Your task to perform on an android device: open app "Pandora - Music & Podcasts" Image 0: 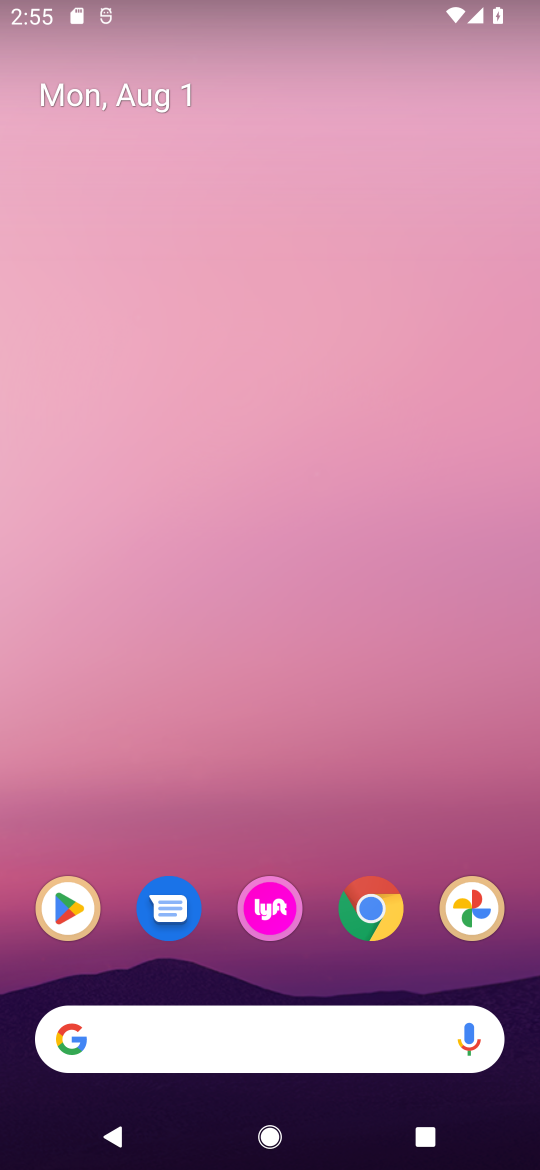
Step 0: drag from (287, 980) to (258, 37)
Your task to perform on an android device: open app "Pandora - Music & Podcasts" Image 1: 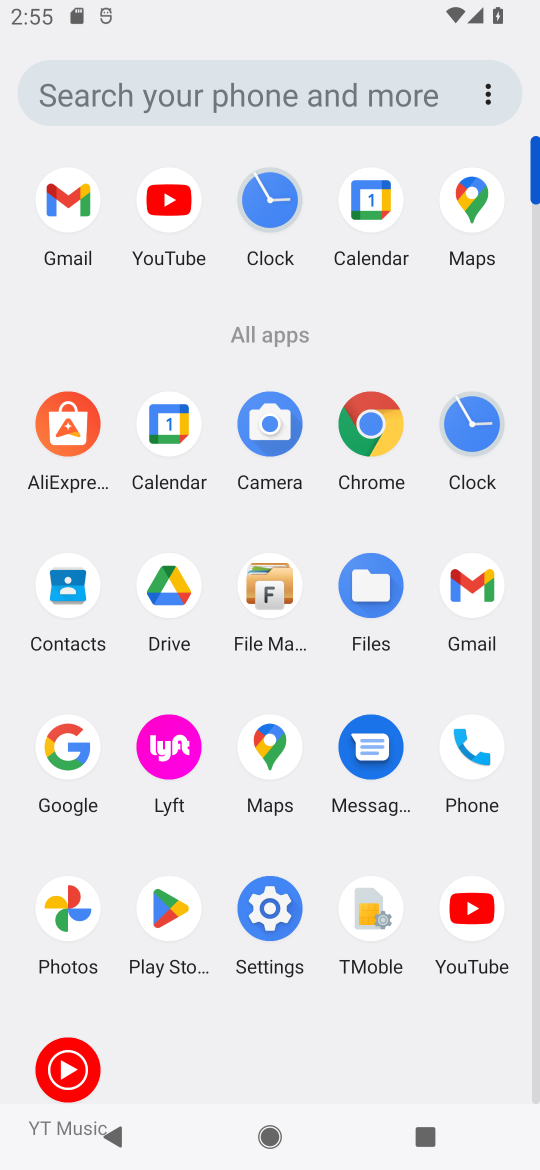
Step 1: click (156, 916)
Your task to perform on an android device: open app "Pandora - Music & Podcasts" Image 2: 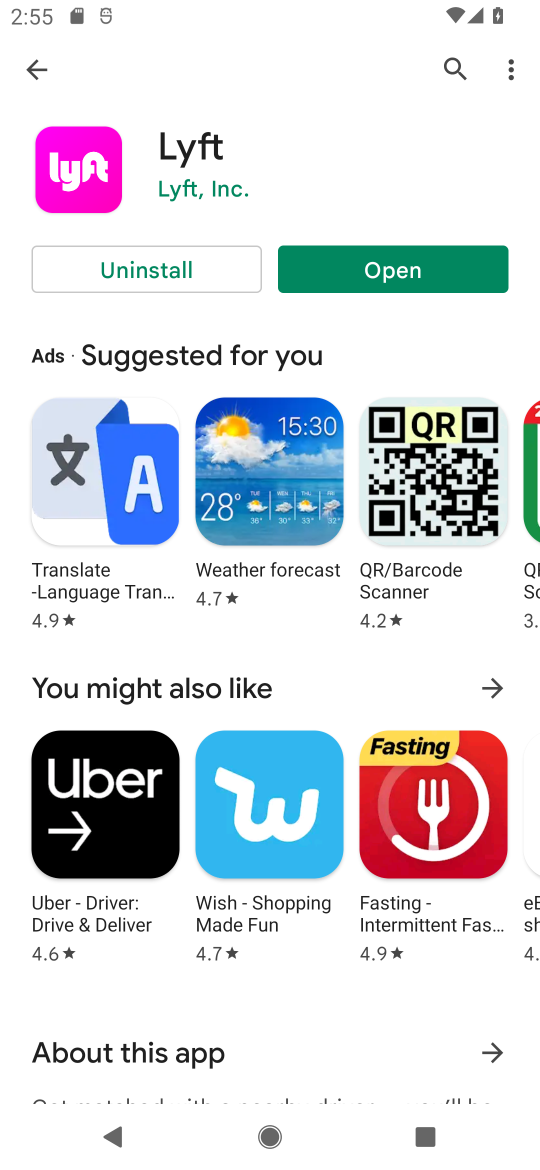
Step 2: click (35, 68)
Your task to perform on an android device: open app "Pandora - Music & Podcasts" Image 3: 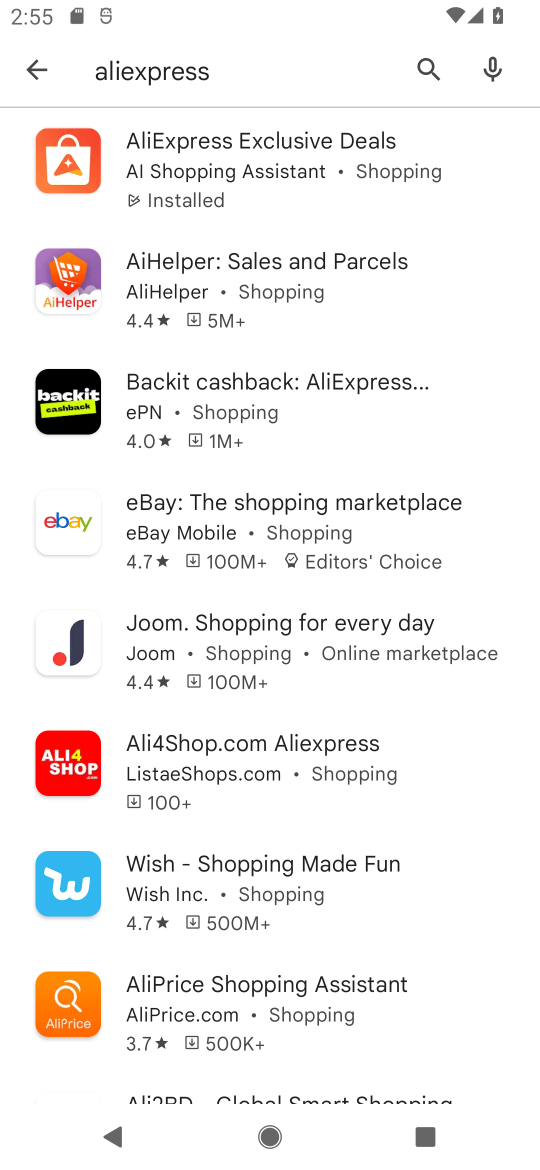
Step 3: click (437, 77)
Your task to perform on an android device: open app "Pandora - Music & Podcasts" Image 4: 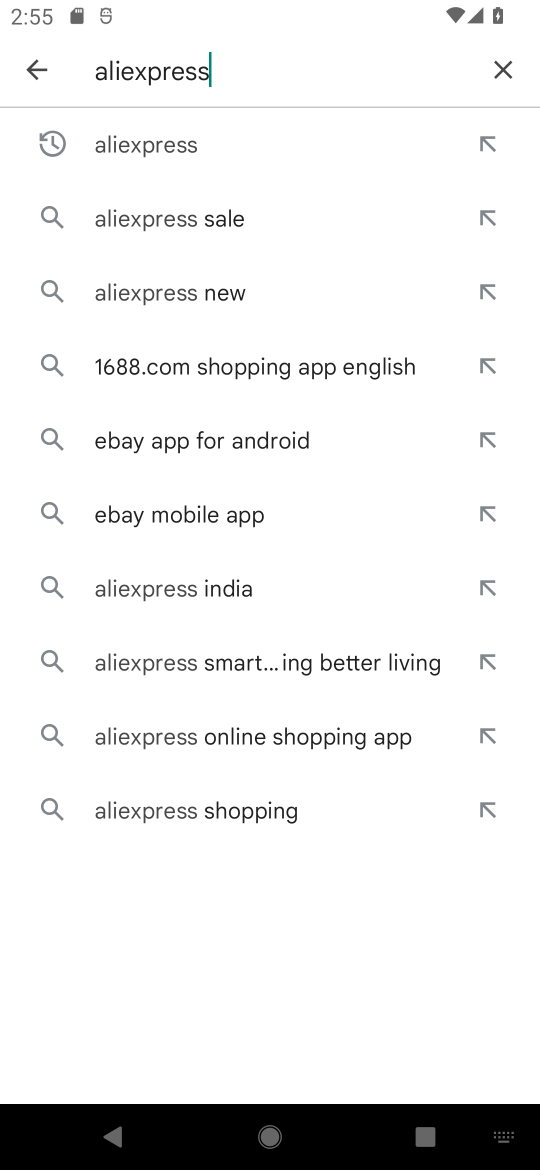
Step 4: click (489, 62)
Your task to perform on an android device: open app "Pandora - Music & Podcasts" Image 5: 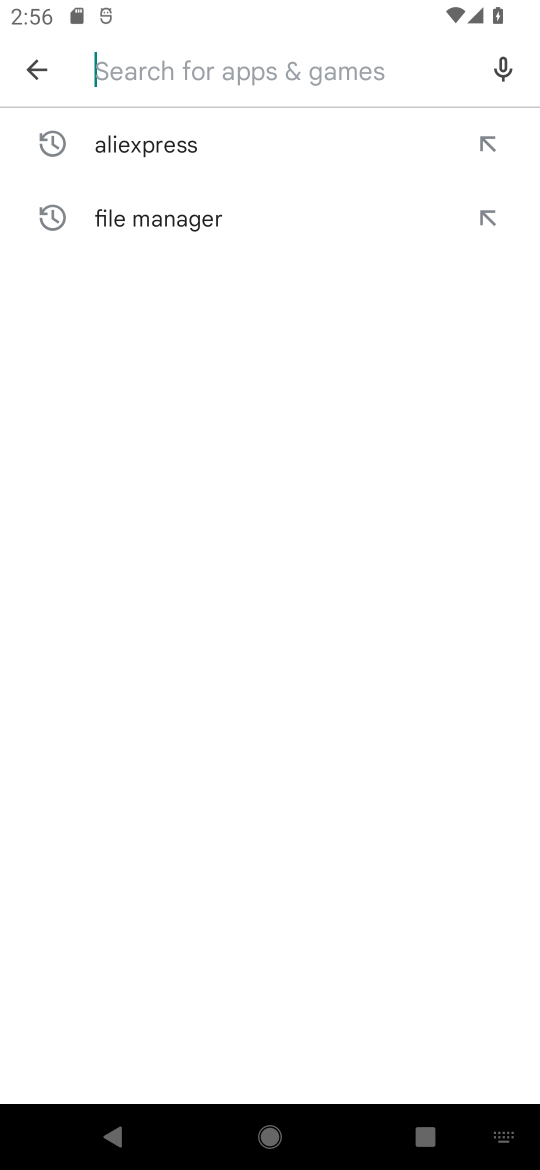
Step 5: type "Pandora"
Your task to perform on an android device: open app "Pandora - Music & Podcasts" Image 6: 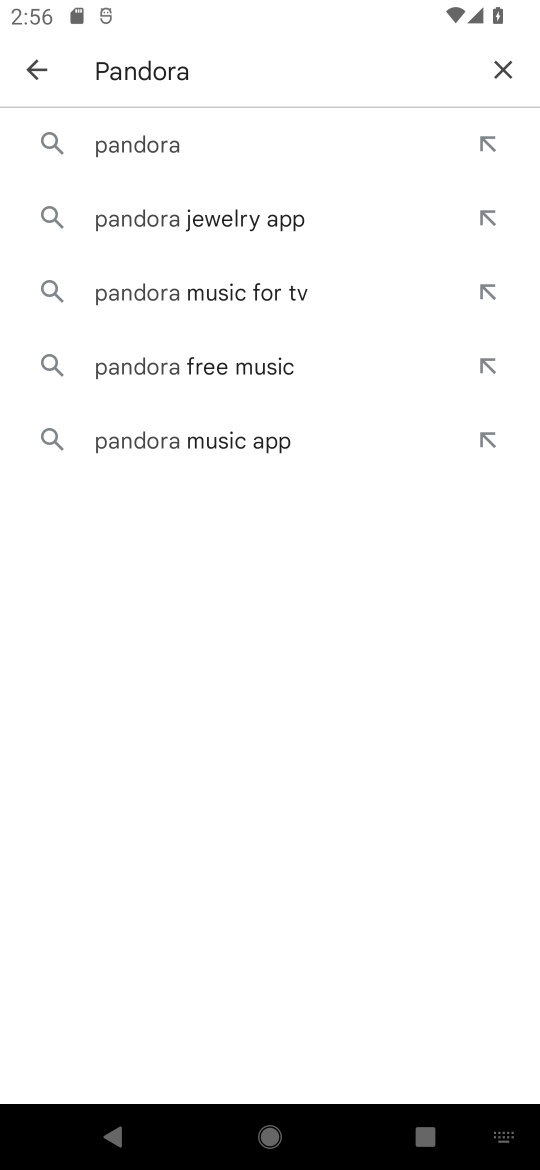
Step 6: click (148, 159)
Your task to perform on an android device: open app "Pandora - Music & Podcasts" Image 7: 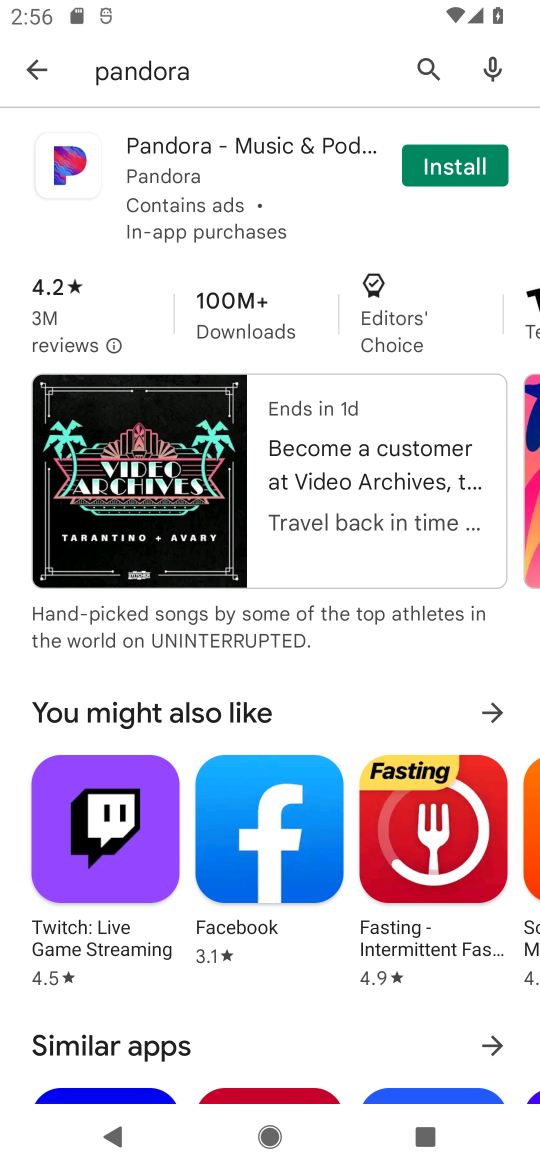
Step 7: click (432, 179)
Your task to perform on an android device: open app "Pandora - Music & Podcasts" Image 8: 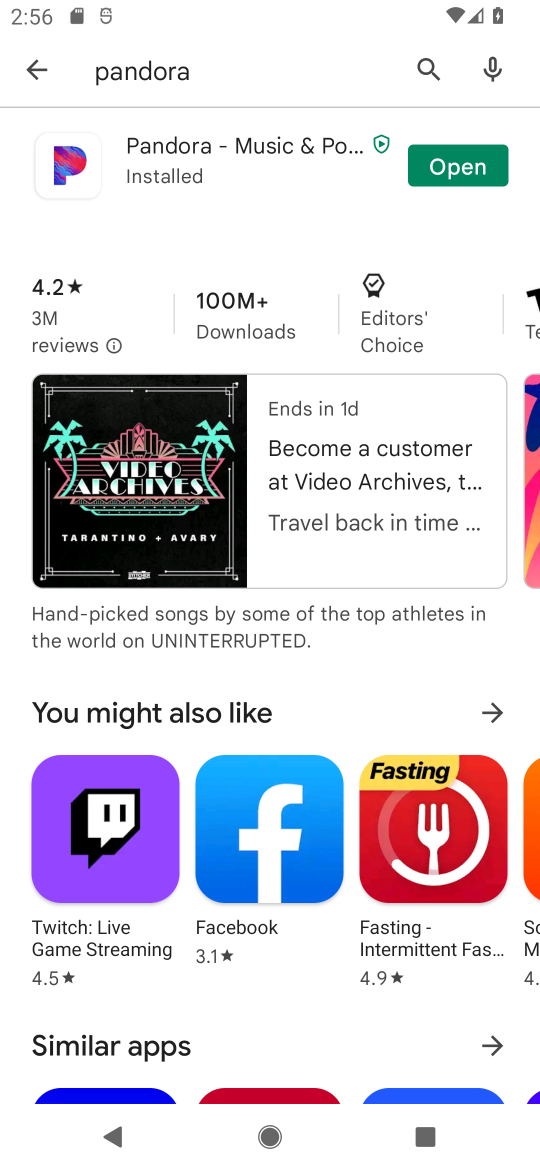
Step 8: click (432, 179)
Your task to perform on an android device: open app "Pandora - Music & Podcasts" Image 9: 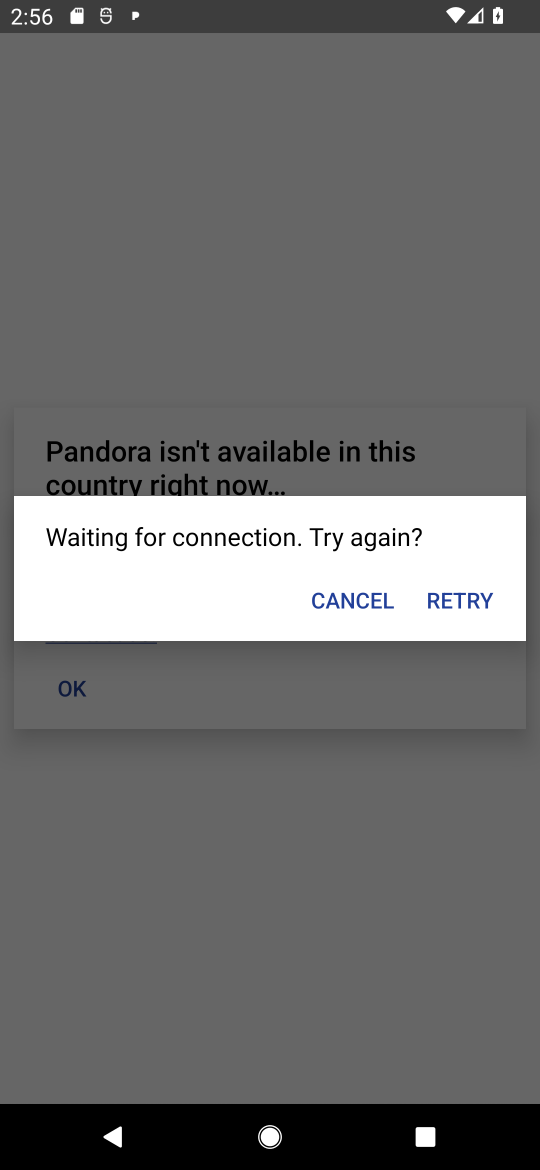
Step 9: click (451, 596)
Your task to perform on an android device: open app "Pandora - Music & Podcasts" Image 10: 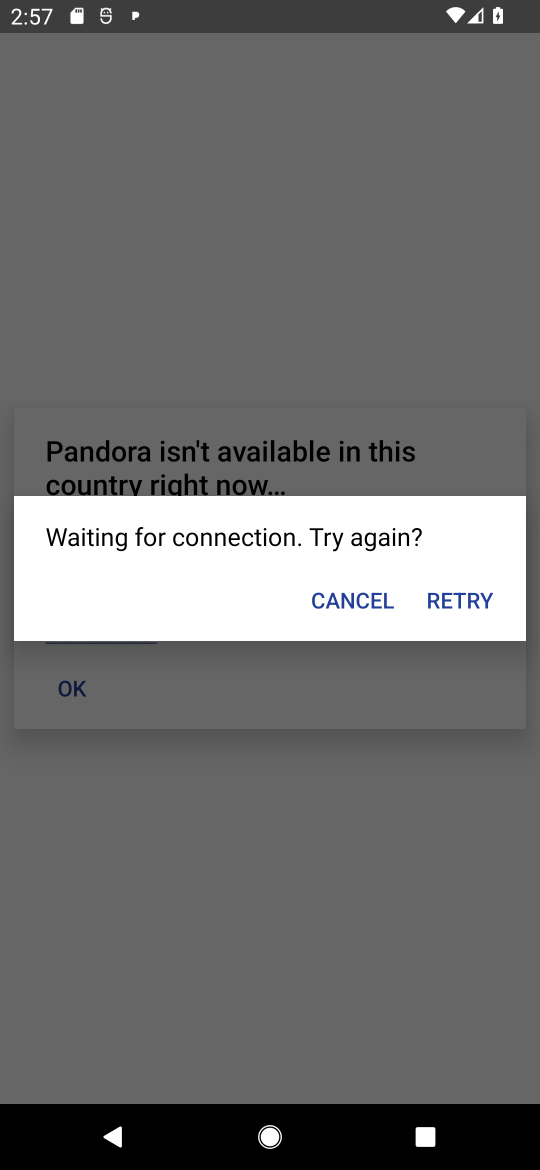
Step 10: click (463, 594)
Your task to perform on an android device: open app "Pandora - Music & Podcasts" Image 11: 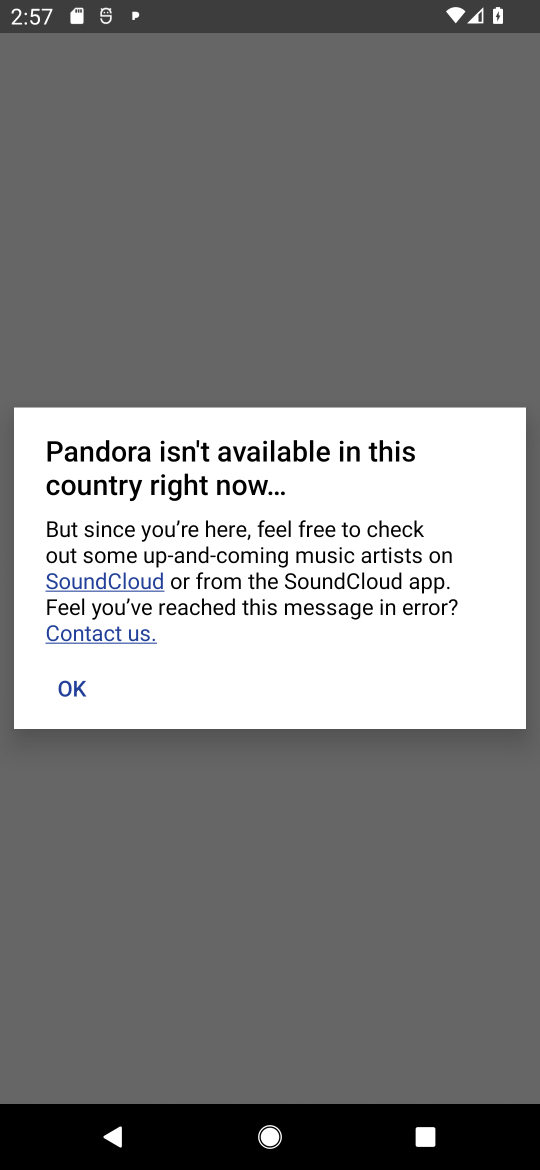
Step 11: task complete